Your task to perform on an android device: Open eBay Image 0: 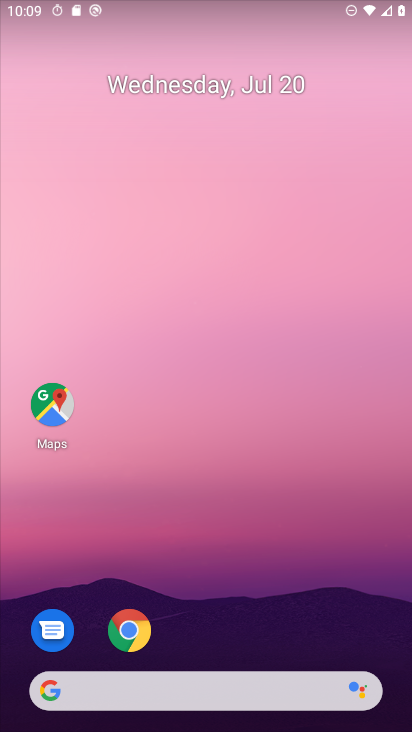
Step 0: drag from (240, 677) to (260, 246)
Your task to perform on an android device: Open eBay Image 1: 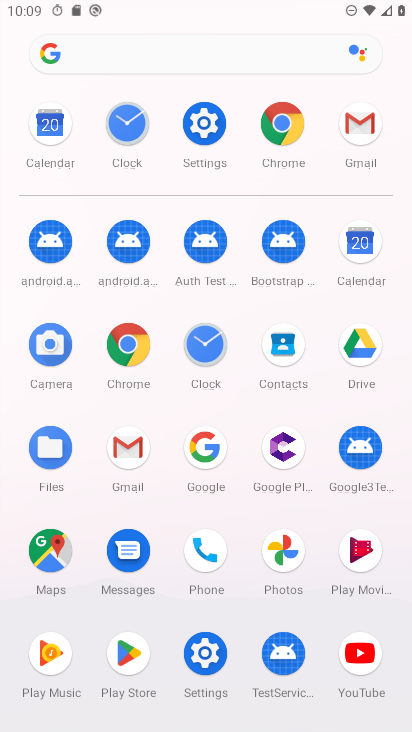
Step 1: click (282, 152)
Your task to perform on an android device: Open eBay Image 2: 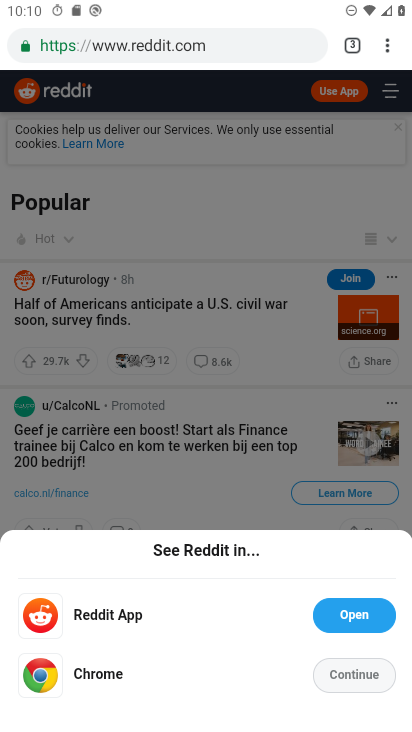
Step 2: click (286, 50)
Your task to perform on an android device: Open eBay Image 3: 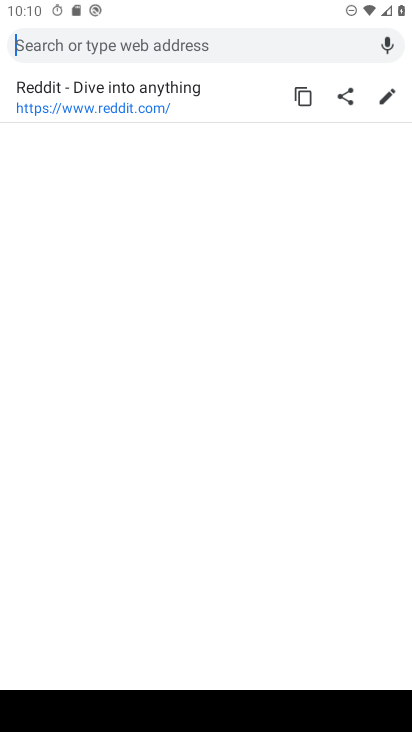
Step 3: type "ebay"
Your task to perform on an android device: Open eBay Image 4: 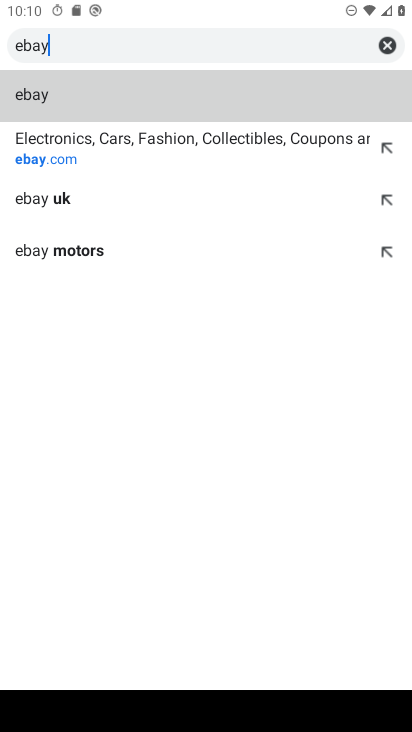
Step 4: click (275, 144)
Your task to perform on an android device: Open eBay Image 5: 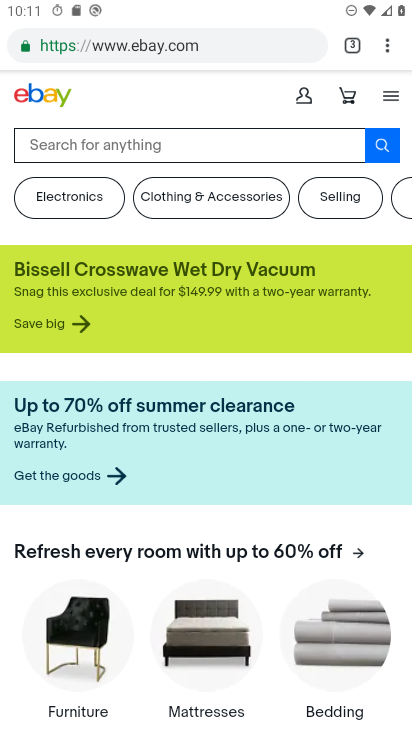
Step 5: task complete